Your task to perform on an android device: Go to notification settings Image 0: 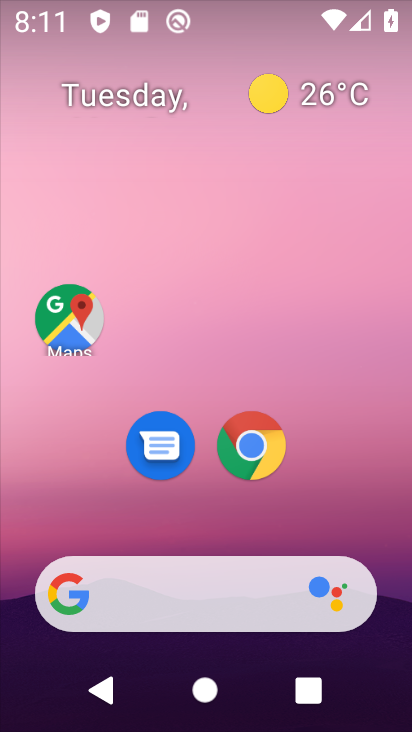
Step 0: drag from (325, 502) to (289, 220)
Your task to perform on an android device: Go to notification settings Image 1: 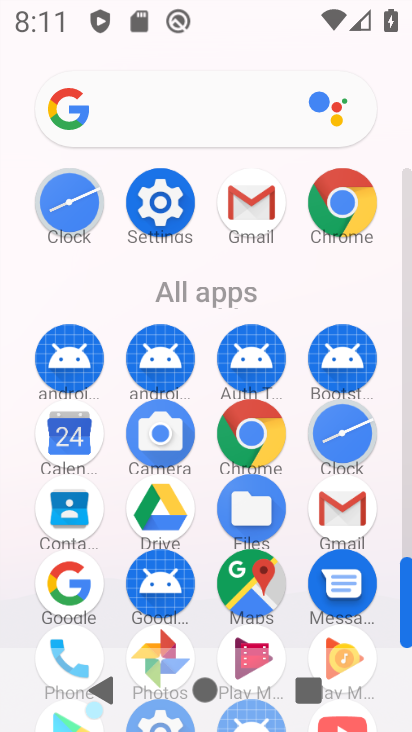
Step 1: click (160, 202)
Your task to perform on an android device: Go to notification settings Image 2: 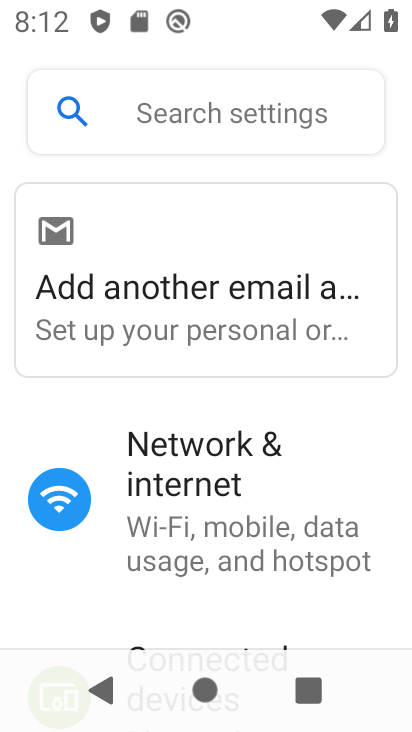
Step 2: drag from (279, 496) to (304, 388)
Your task to perform on an android device: Go to notification settings Image 3: 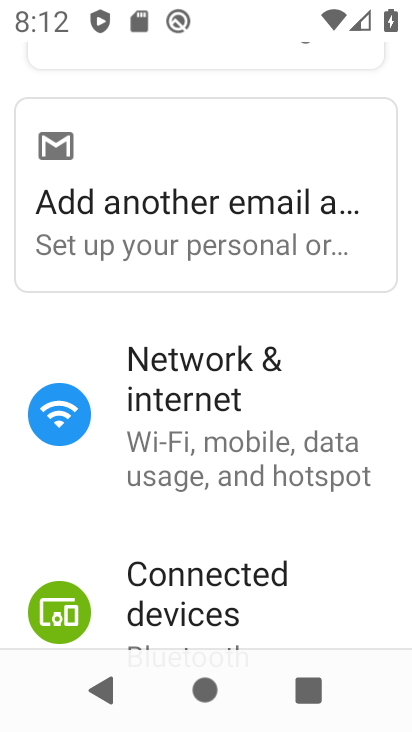
Step 3: drag from (291, 471) to (310, 441)
Your task to perform on an android device: Go to notification settings Image 4: 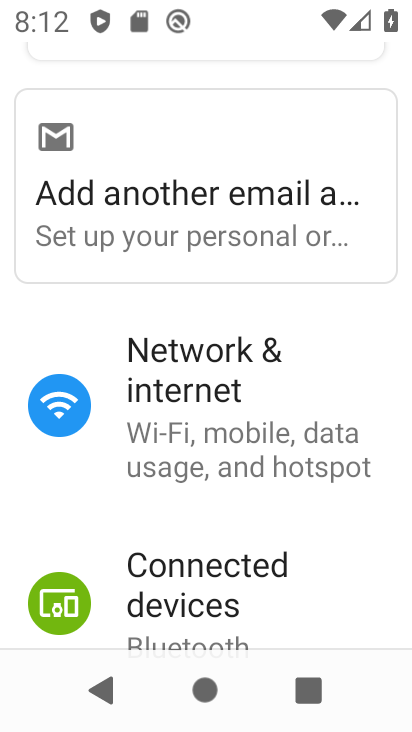
Step 4: drag from (227, 547) to (298, 413)
Your task to perform on an android device: Go to notification settings Image 5: 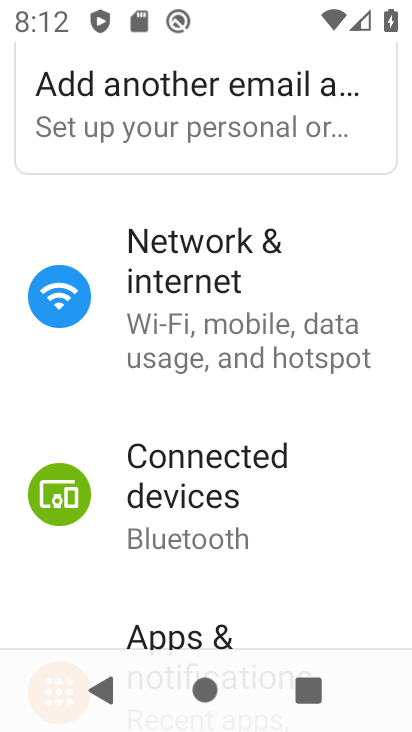
Step 5: drag from (222, 577) to (309, 470)
Your task to perform on an android device: Go to notification settings Image 6: 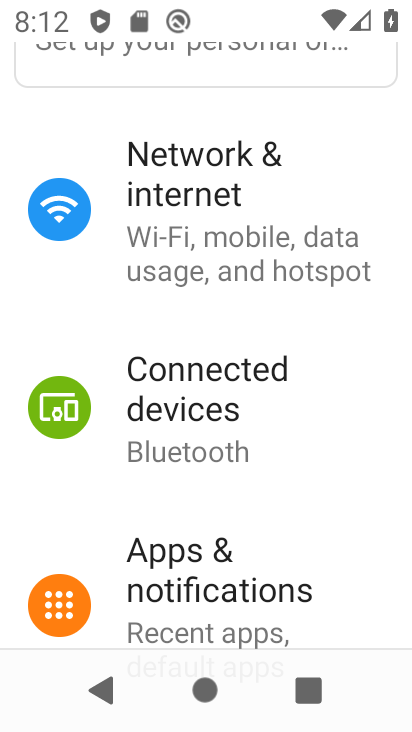
Step 6: drag from (281, 547) to (318, 372)
Your task to perform on an android device: Go to notification settings Image 7: 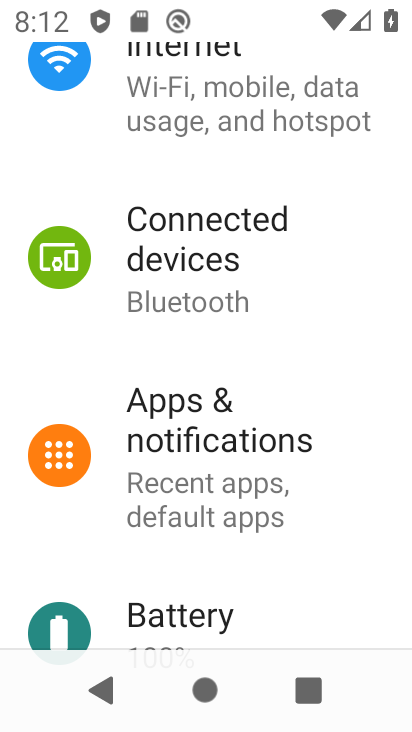
Step 7: click (190, 442)
Your task to perform on an android device: Go to notification settings Image 8: 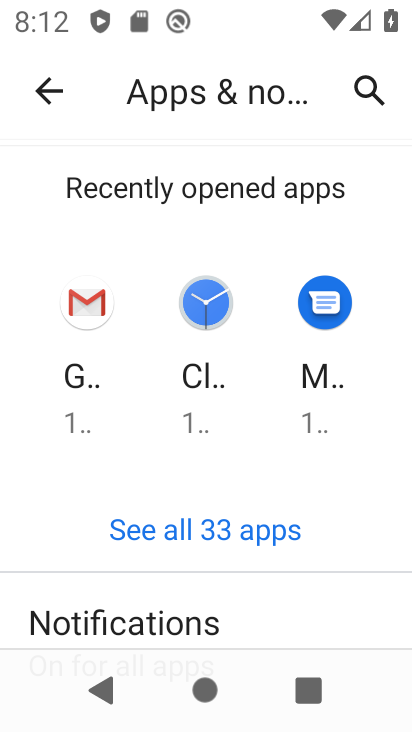
Step 8: drag from (288, 624) to (297, 538)
Your task to perform on an android device: Go to notification settings Image 9: 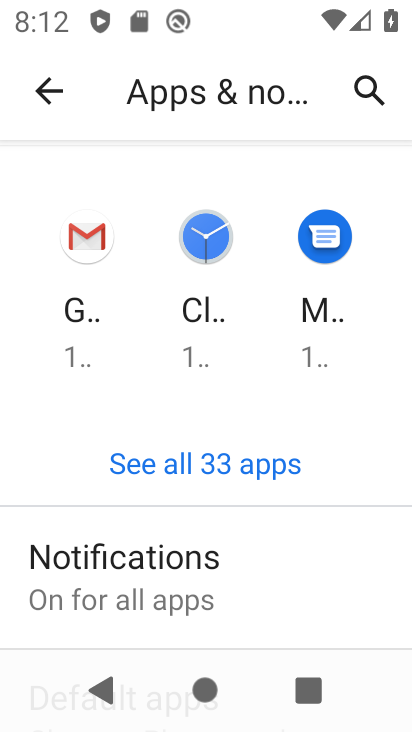
Step 9: click (165, 559)
Your task to perform on an android device: Go to notification settings Image 10: 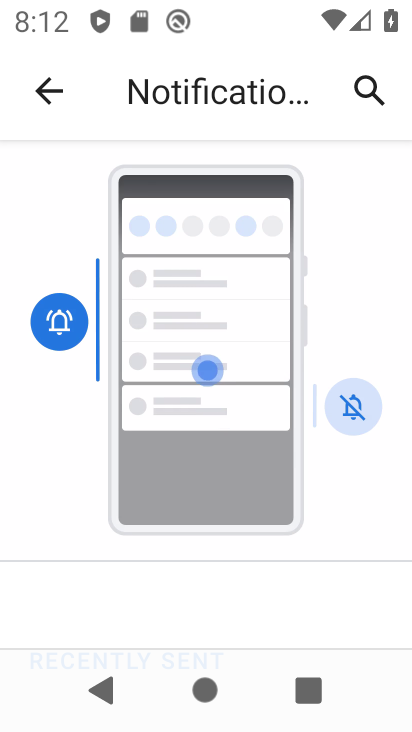
Step 10: task complete